Your task to perform on an android device: Open the calendar and show me this week's events? Image 0: 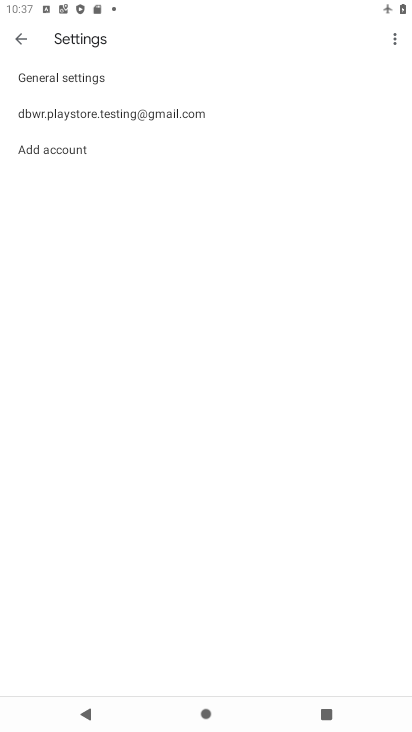
Step 0: press home button
Your task to perform on an android device: Open the calendar and show me this week's events? Image 1: 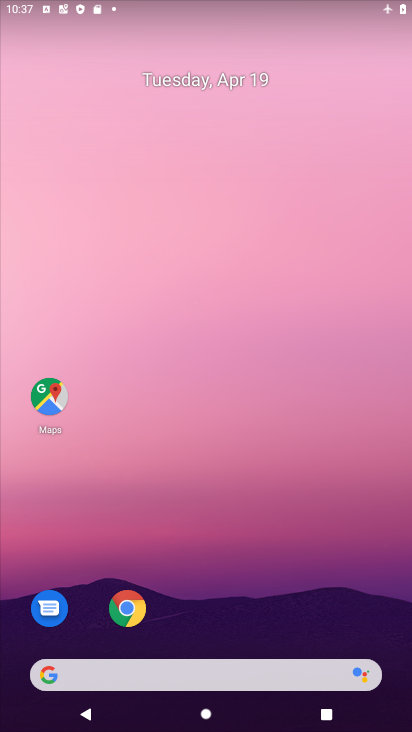
Step 1: drag from (357, 613) to (323, 174)
Your task to perform on an android device: Open the calendar and show me this week's events? Image 2: 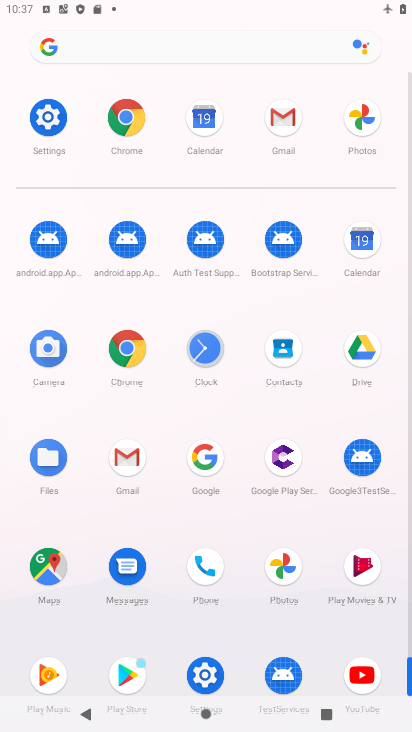
Step 2: click (360, 238)
Your task to perform on an android device: Open the calendar and show me this week's events? Image 3: 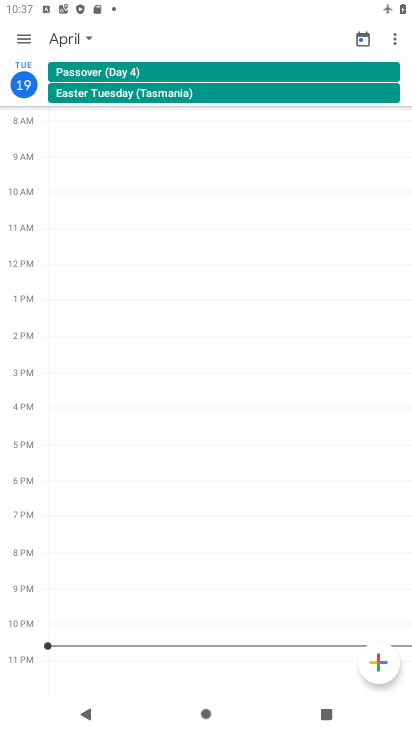
Step 3: click (24, 34)
Your task to perform on an android device: Open the calendar and show me this week's events? Image 4: 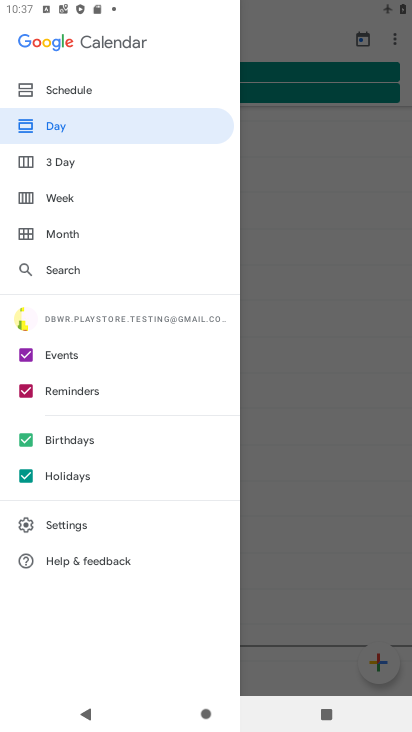
Step 4: click (56, 197)
Your task to perform on an android device: Open the calendar and show me this week's events? Image 5: 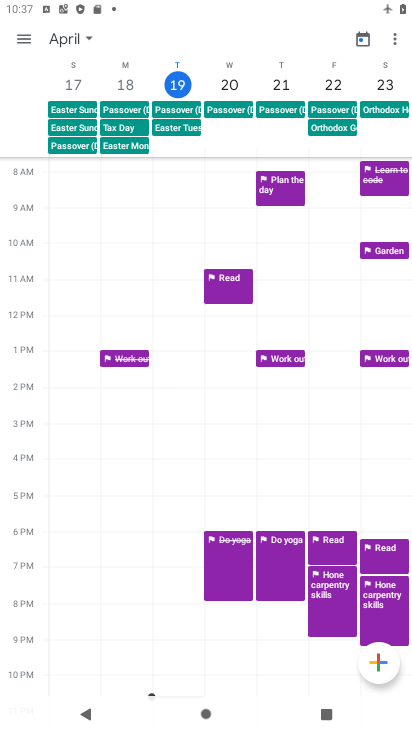
Step 5: drag from (172, 271) to (144, 478)
Your task to perform on an android device: Open the calendar and show me this week's events? Image 6: 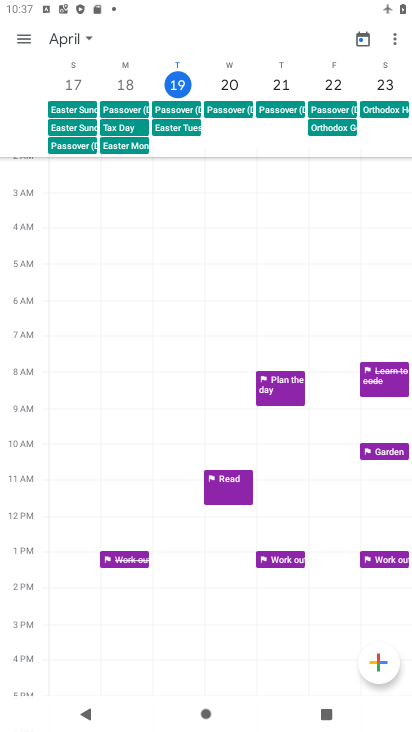
Step 6: click (199, 203)
Your task to perform on an android device: Open the calendar and show me this week's events? Image 7: 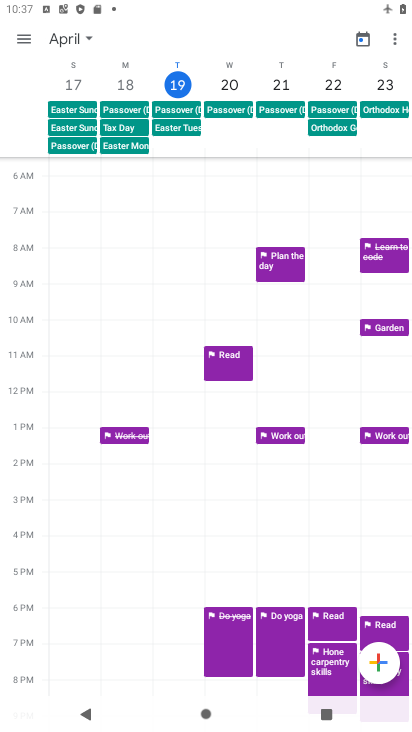
Step 7: task complete